Your task to perform on an android device: Play the last video I watched on Youtube Image 0: 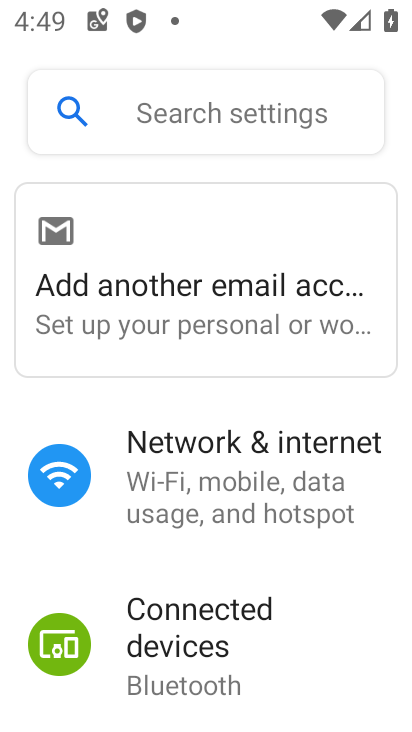
Step 0: press back button
Your task to perform on an android device: Play the last video I watched on Youtube Image 1: 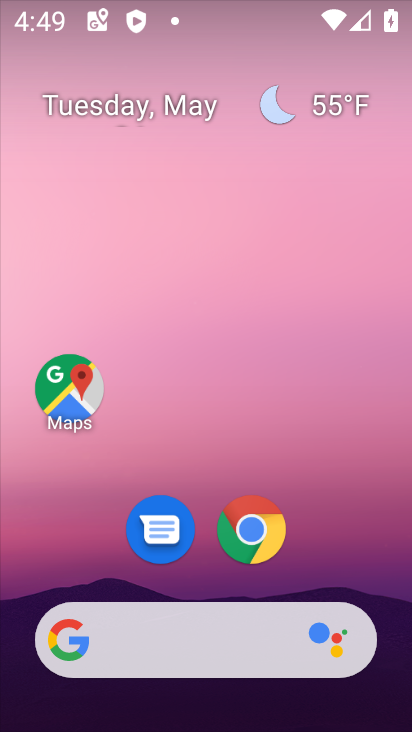
Step 1: drag from (178, 667) to (150, 238)
Your task to perform on an android device: Play the last video I watched on Youtube Image 2: 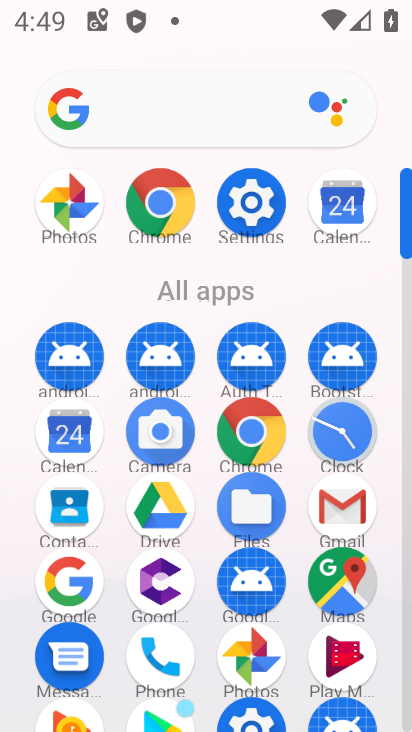
Step 2: drag from (307, 629) to (287, 290)
Your task to perform on an android device: Play the last video I watched on Youtube Image 3: 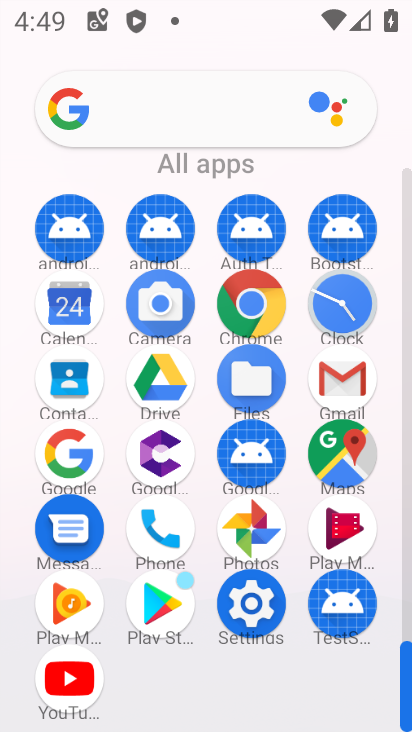
Step 3: drag from (304, 623) to (294, 282)
Your task to perform on an android device: Play the last video I watched on Youtube Image 4: 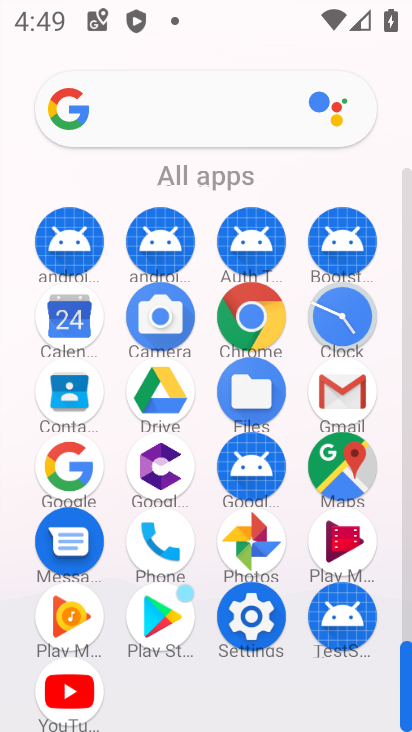
Step 4: click (65, 680)
Your task to perform on an android device: Play the last video I watched on Youtube Image 5: 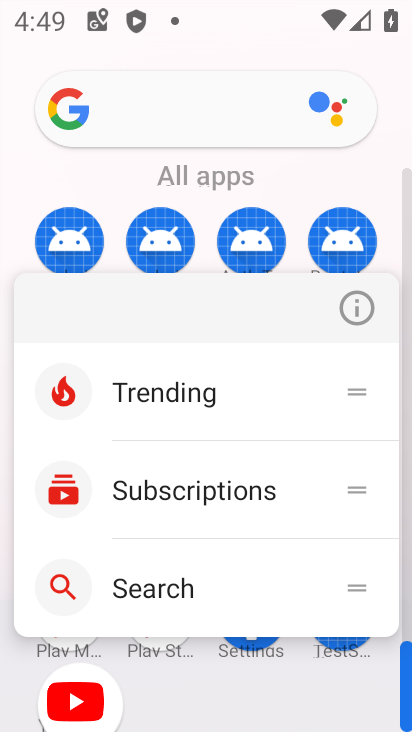
Step 5: click (76, 691)
Your task to perform on an android device: Play the last video I watched on Youtube Image 6: 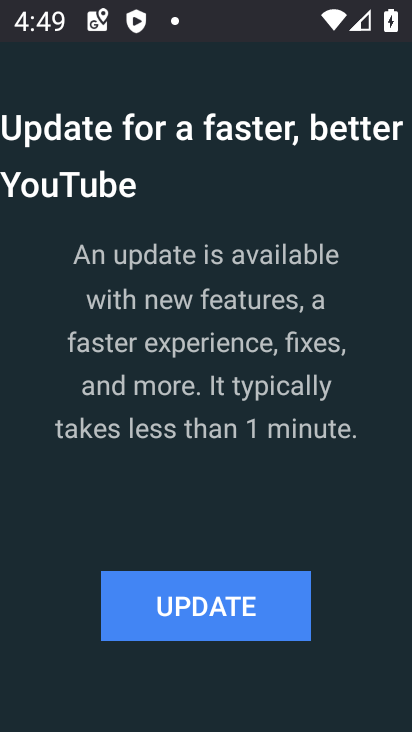
Step 6: task complete